Your task to perform on an android device: open chrome privacy settings Image 0: 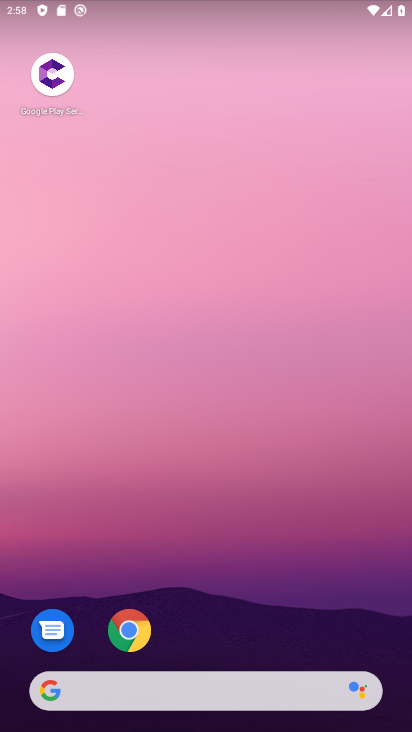
Step 0: click (123, 623)
Your task to perform on an android device: open chrome privacy settings Image 1: 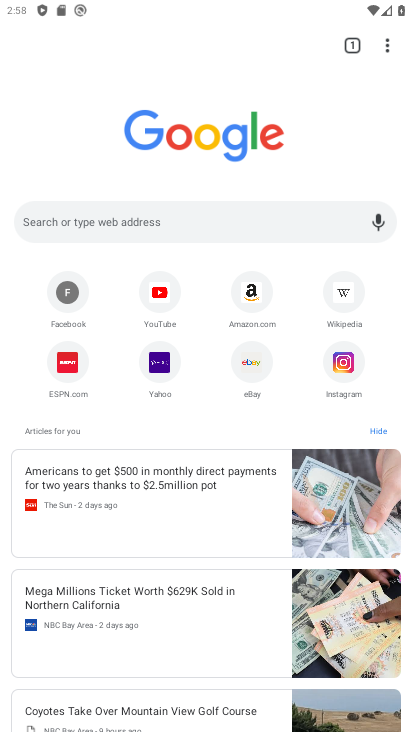
Step 1: click (384, 48)
Your task to perform on an android device: open chrome privacy settings Image 2: 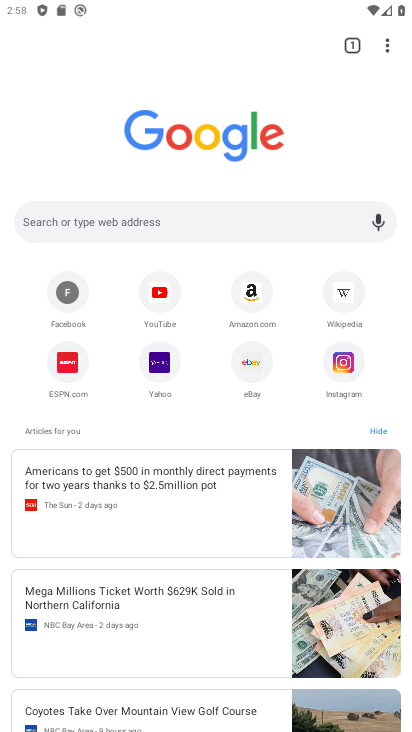
Step 2: click (384, 48)
Your task to perform on an android device: open chrome privacy settings Image 3: 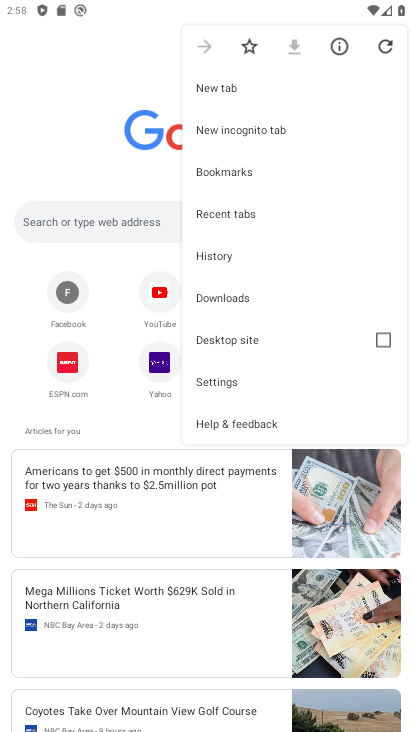
Step 3: click (221, 379)
Your task to perform on an android device: open chrome privacy settings Image 4: 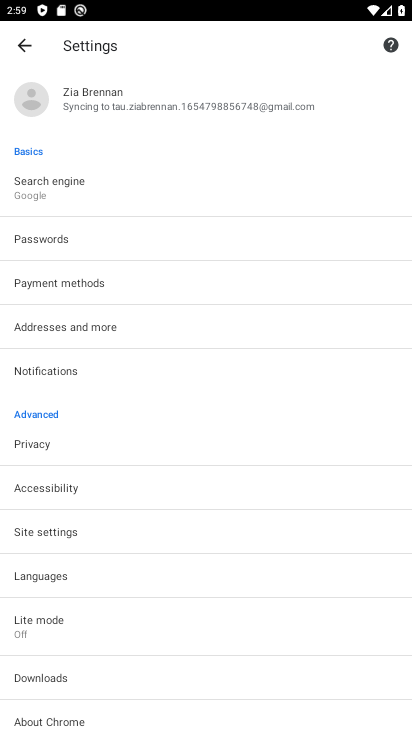
Step 4: click (36, 441)
Your task to perform on an android device: open chrome privacy settings Image 5: 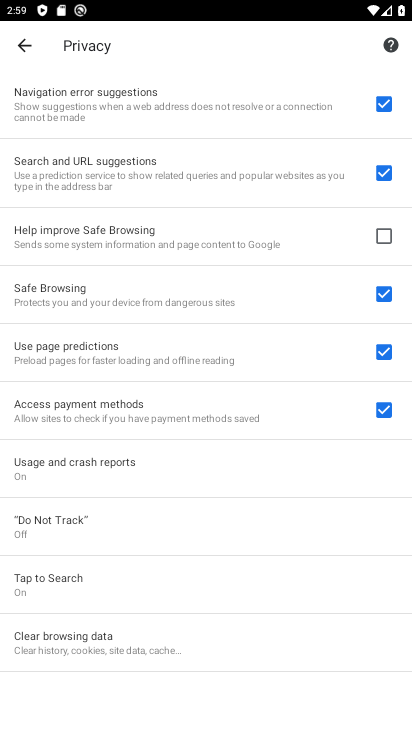
Step 5: task complete